Your task to perform on an android device: Go to Google maps Image 0: 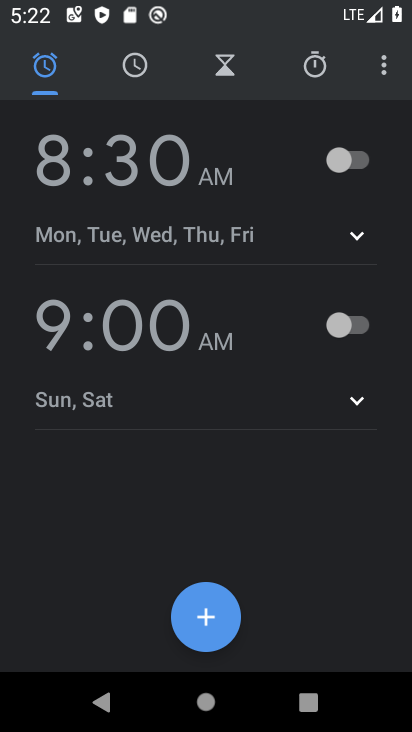
Step 0: press home button
Your task to perform on an android device: Go to Google maps Image 1: 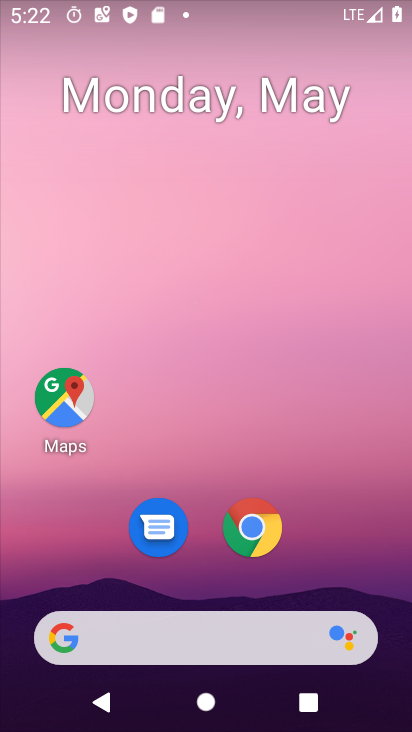
Step 1: drag from (398, 680) to (353, 265)
Your task to perform on an android device: Go to Google maps Image 2: 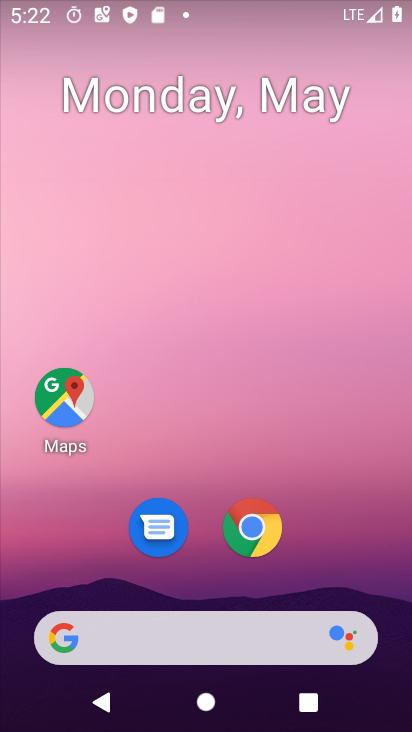
Step 2: click (67, 373)
Your task to perform on an android device: Go to Google maps Image 3: 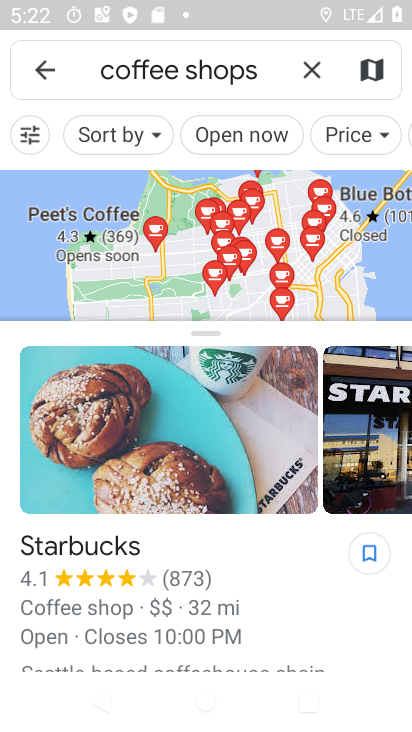
Step 3: task complete